Your task to perform on an android device: toggle wifi Image 0: 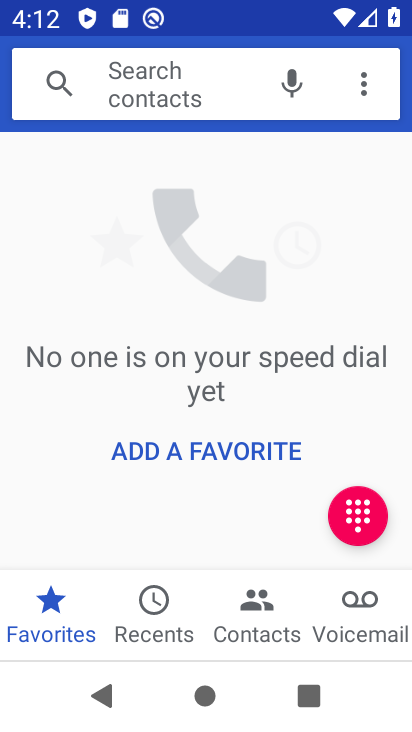
Step 0: press home button
Your task to perform on an android device: toggle wifi Image 1: 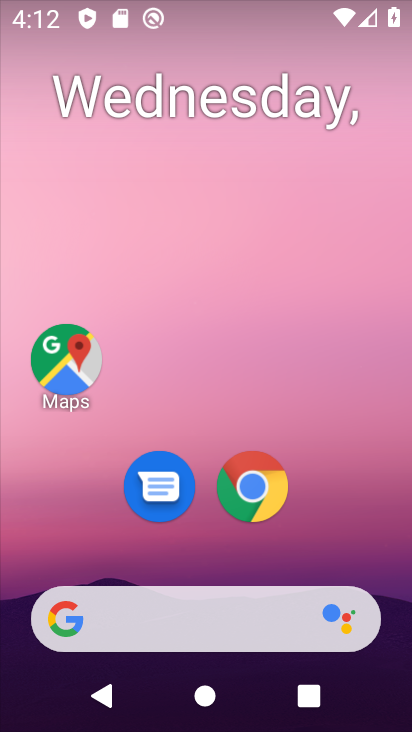
Step 1: drag from (355, 320) to (352, 267)
Your task to perform on an android device: toggle wifi Image 2: 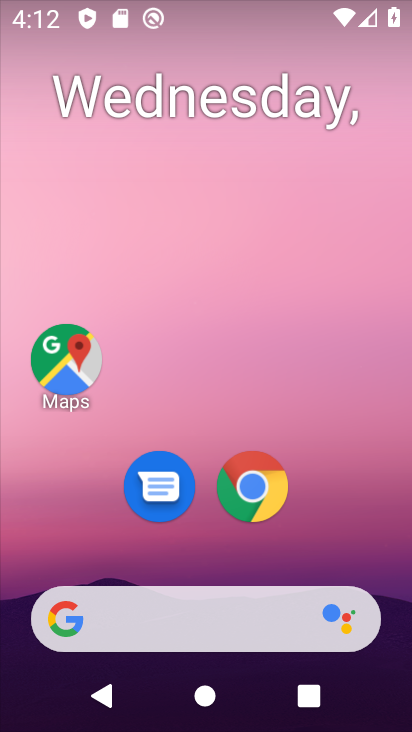
Step 2: drag from (378, 682) to (320, 108)
Your task to perform on an android device: toggle wifi Image 3: 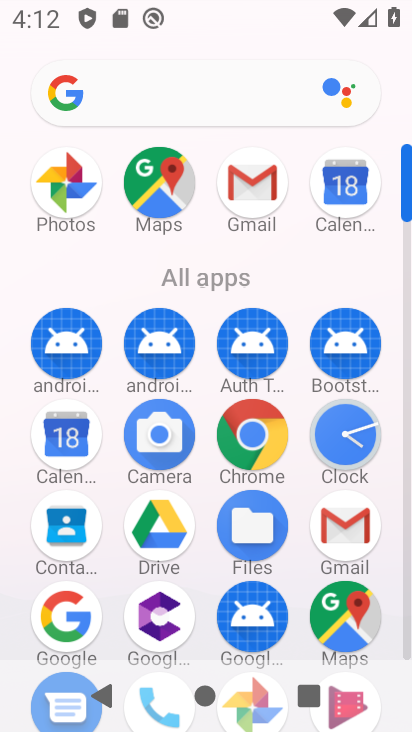
Step 3: drag from (406, 151) to (411, 17)
Your task to perform on an android device: toggle wifi Image 4: 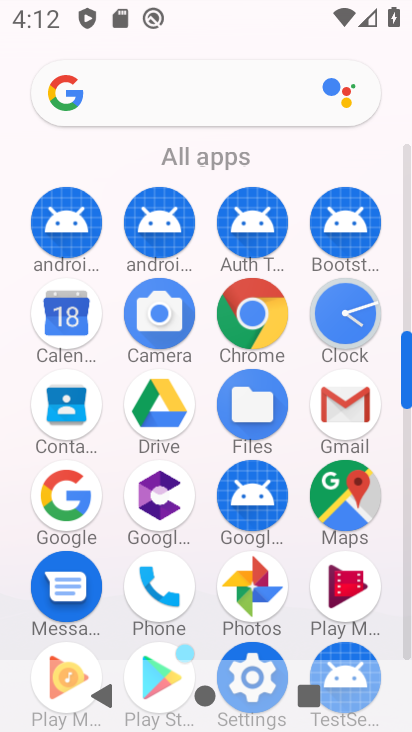
Step 4: click (244, 647)
Your task to perform on an android device: toggle wifi Image 5: 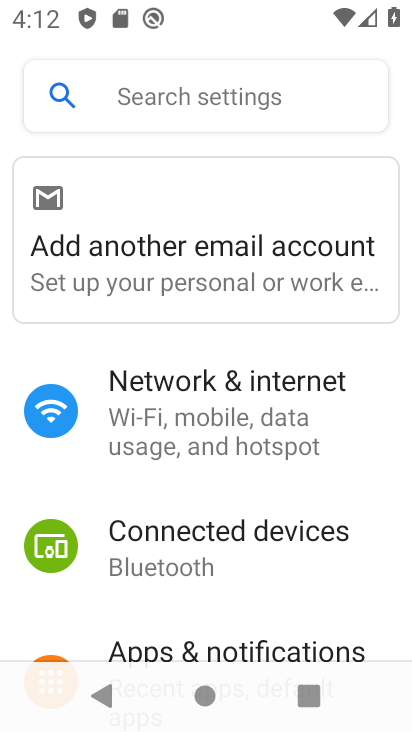
Step 5: click (185, 389)
Your task to perform on an android device: toggle wifi Image 6: 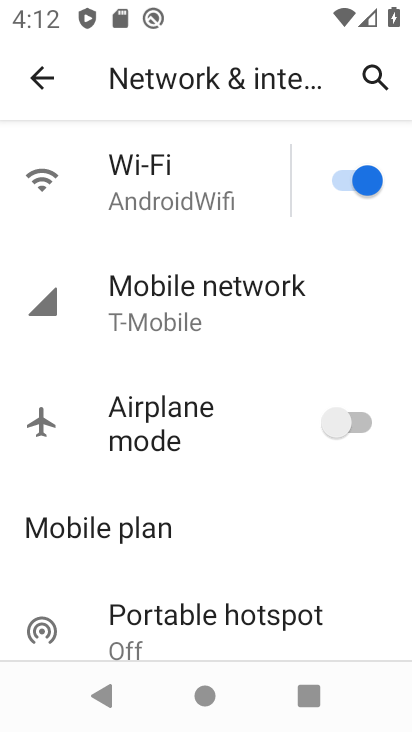
Step 6: click (345, 183)
Your task to perform on an android device: toggle wifi Image 7: 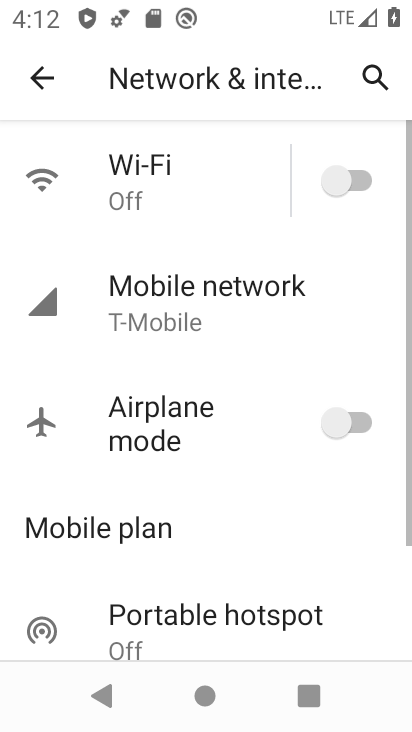
Step 7: task complete